Your task to perform on an android device: Go to wifi settings Image 0: 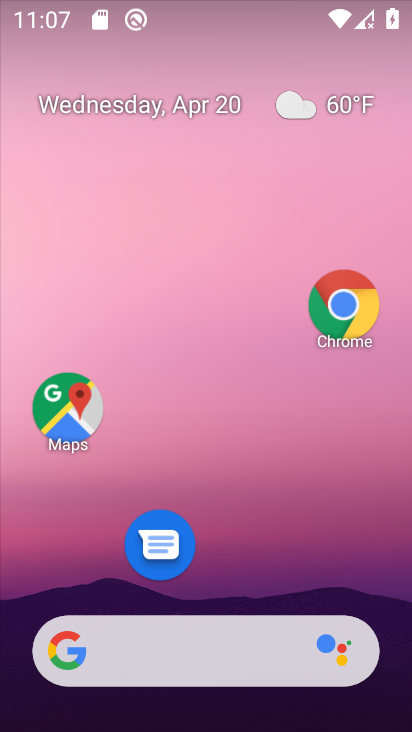
Step 0: drag from (260, 613) to (341, 256)
Your task to perform on an android device: Go to wifi settings Image 1: 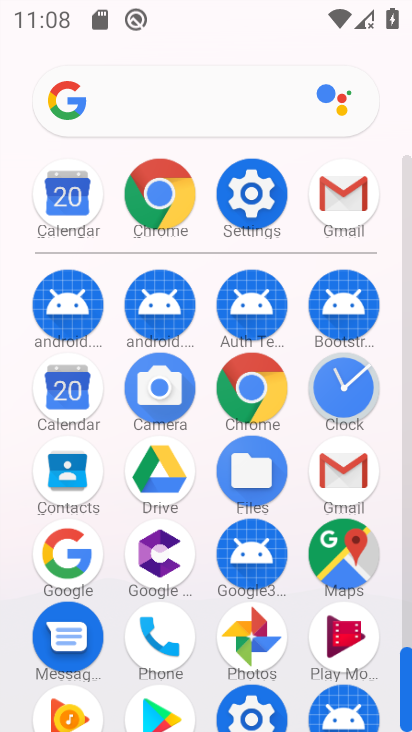
Step 1: click (253, 211)
Your task to perform on an android device: Go to wifi settings Image 2: 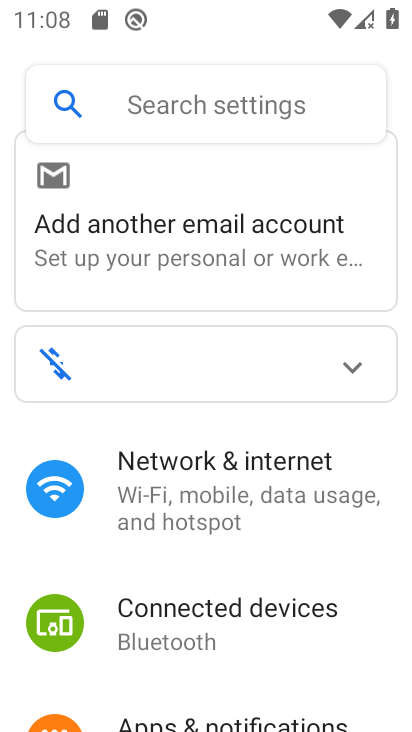
Step 2: click (219, 507)
Your task to perform on an android device: Go to wifi settings Image 3: 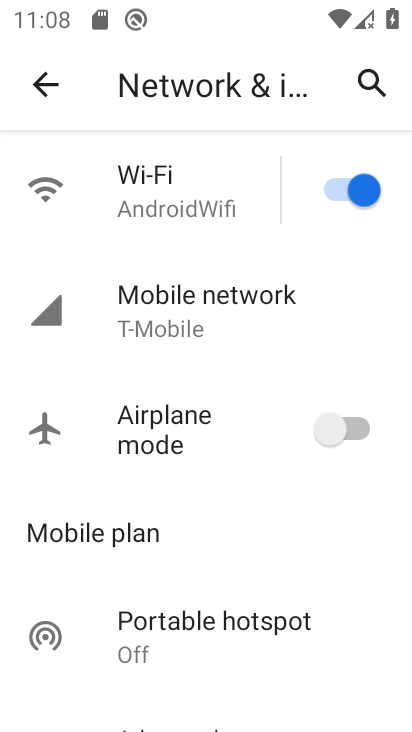
Step 3: click (185, 193)
Your task to perform on an android device: Go to wifi settings Image 4: 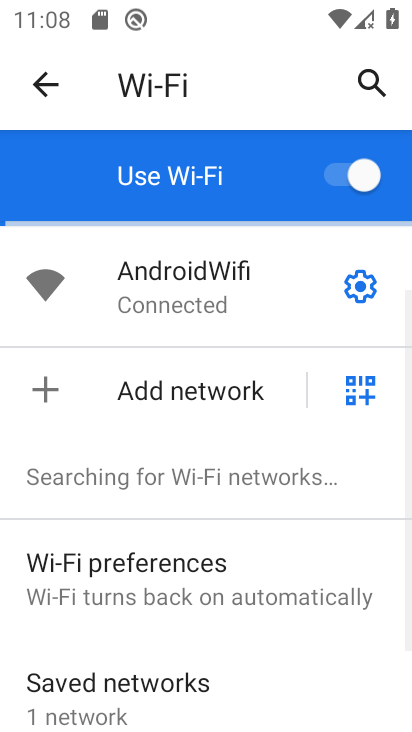
Step 4: task complete